Your task to perform on an android device: refresh tabs in the chrome app Image 0: 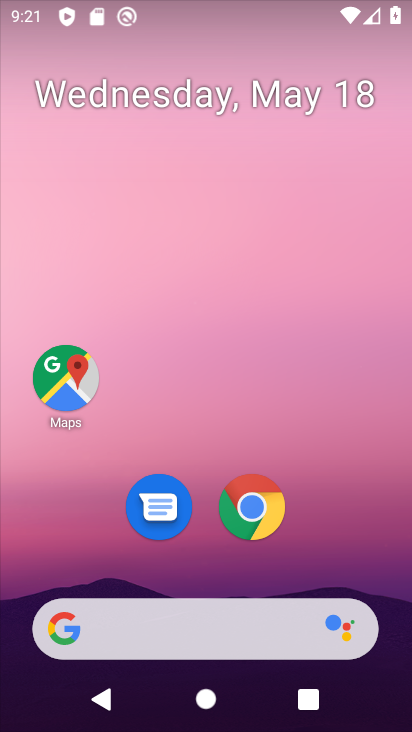
Step 0: click (256, 503)
Your task to perform on an android device: refresh tabs in the chrome app Image 1: 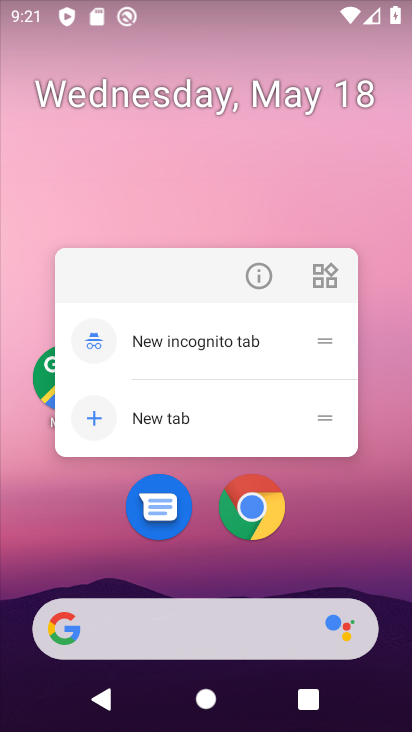
Step 1: click (256, 503)
Your task to perform on an android device: refresh tabs in the chrome app Image 2: 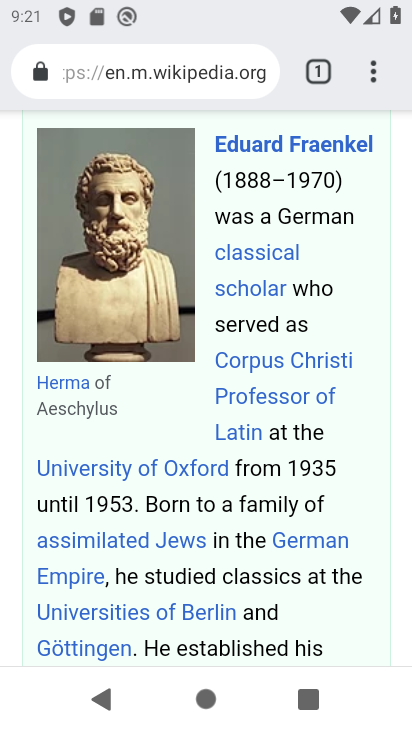
Step 2: click (375, 69)
Your task to perform on an android device: refresh tabs in the chrome app Image 3: 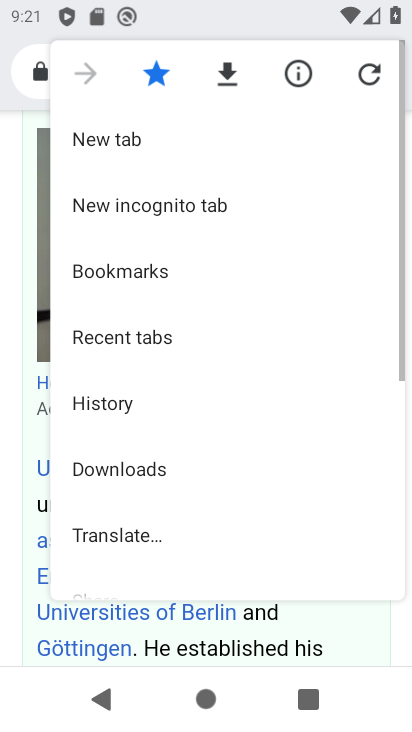
Step 3: click (375, 69)
Your task to perform on an android device: refresh tabs in the chrome app Image 4: 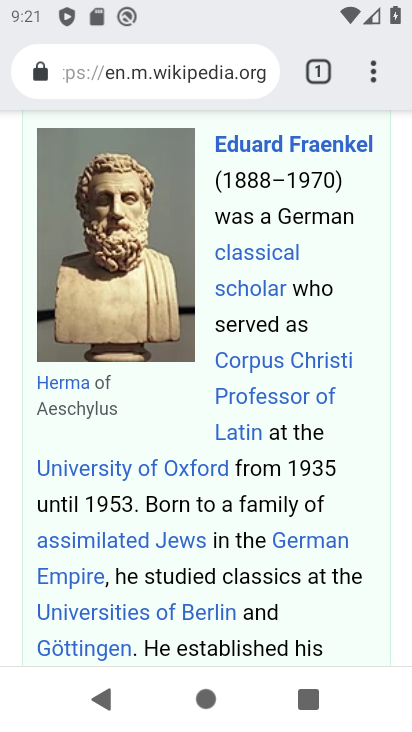
Step 4: task complete